Your task to perform on an android device: turn off data saver in the chrome app Image 0: 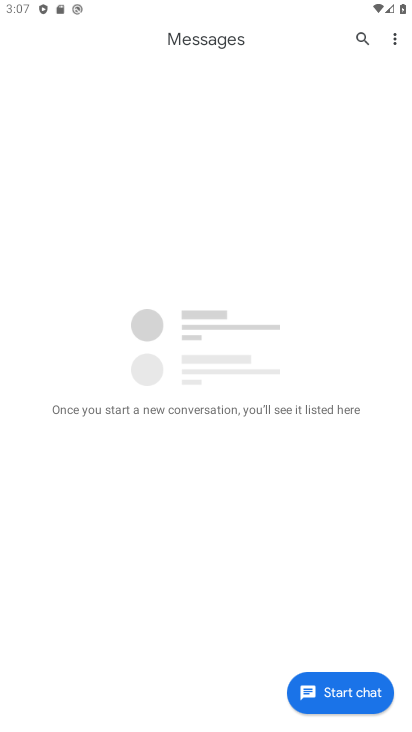
Step 0: press home button
Your task to perform on an android device: turn off data saver in the chrome app Image 1: 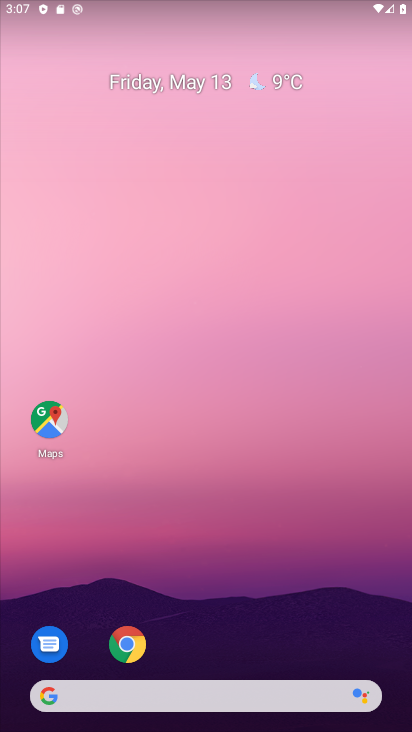
Step 1: drag from (190, 671) to (363, 72)
Your task to perform on an android device: turn off data saver in the chrome app Image 2: 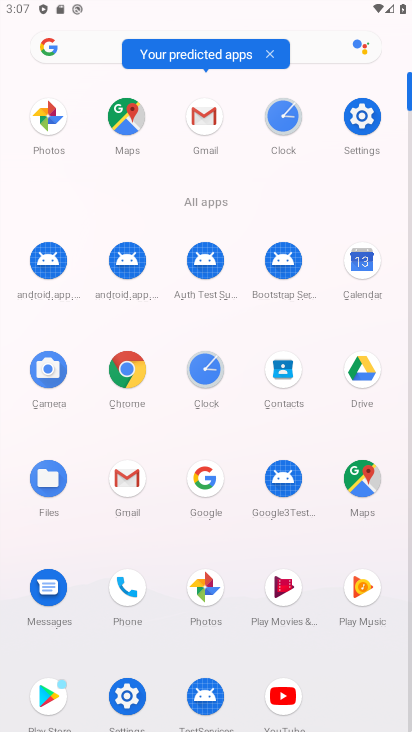
Step 2: drag from (144, 633) to (216, 534)
Your task to perform on an android device: turn off data saver in the chrome app Image 3: 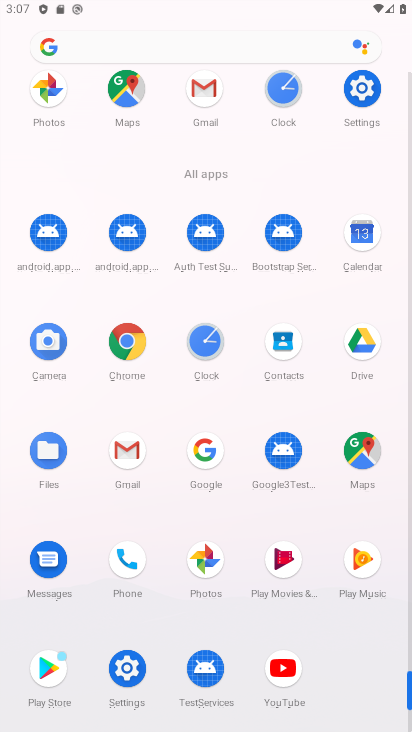
Step 3: click (121, 670)
Your task to perform on an android device: turn off data saver in the chrome app Image 4: 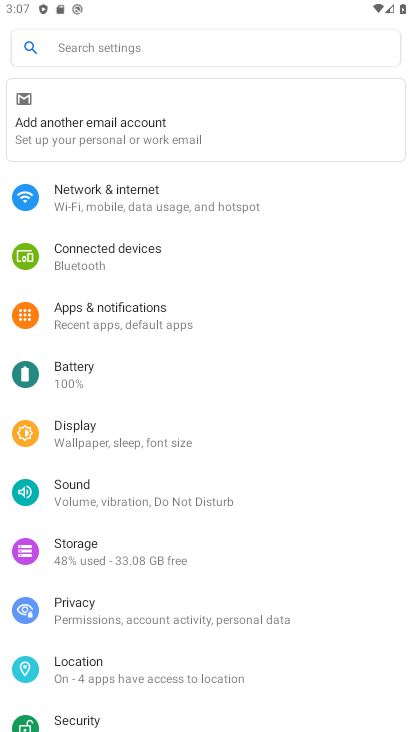
Step 4: press home button
Your task to perform on an android device: turn off data saver in the chrome app Image 5: 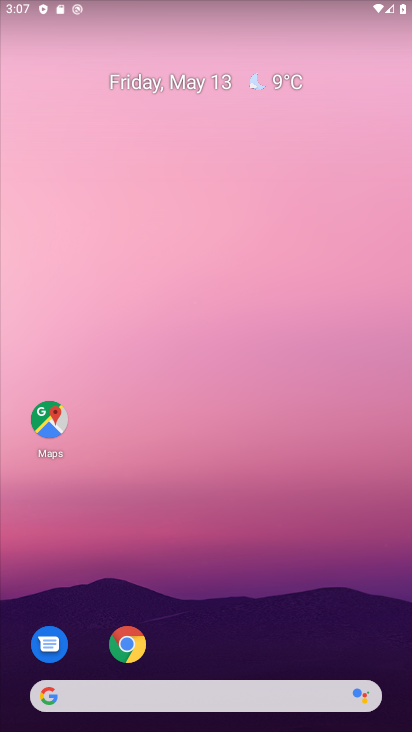
Step 5: click (128, 660)
Your task to perform on an android device: turn off data saver in the chrome app Image 6: 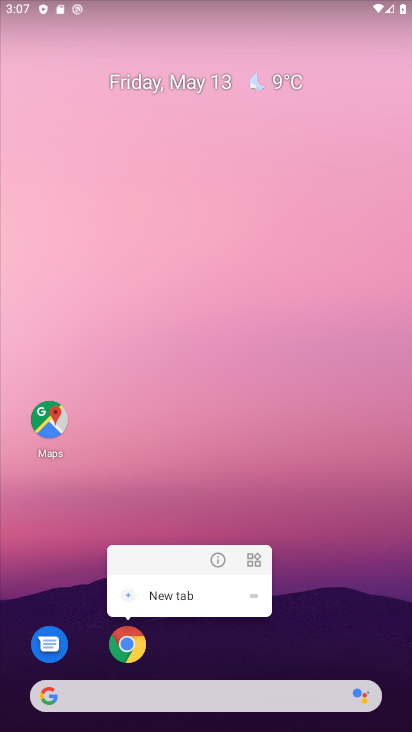
Step 6: click (128, 651)
Your task to perform on an android device: turn off data saver in the chrome app Image 7: 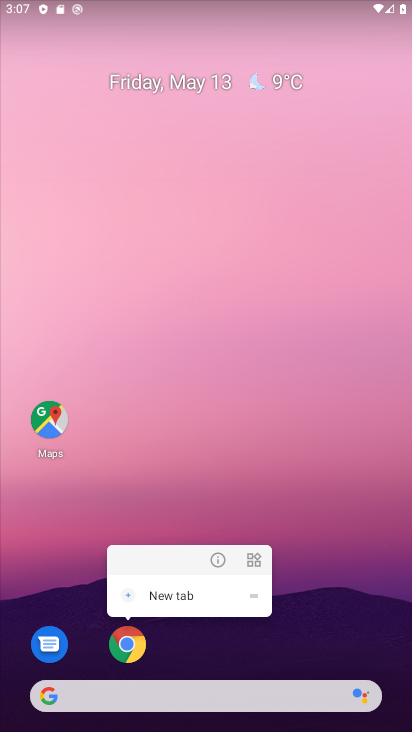
Step 7: click (128, 647)
Your task to perform on an android device: turn off data saver in the chrome app Image 8: 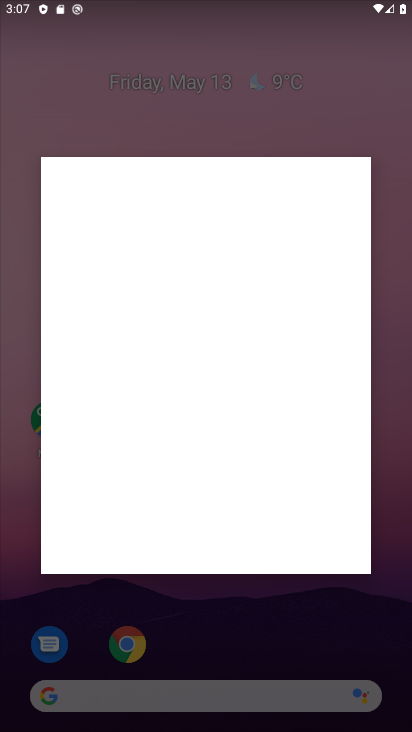
Step 8: click (128, 647)
Your task to perform on an android device: turn off data saver in the chrome app Image 9: 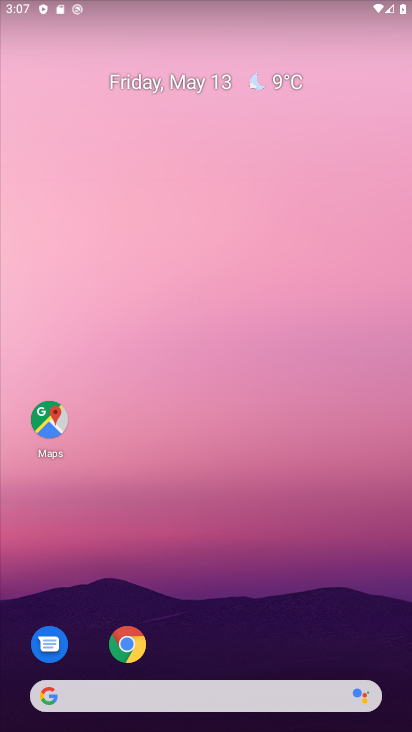
Step 9: click (115, 641)
Your task to perform on an android device: turn off data saver in the chrome app Image 10: 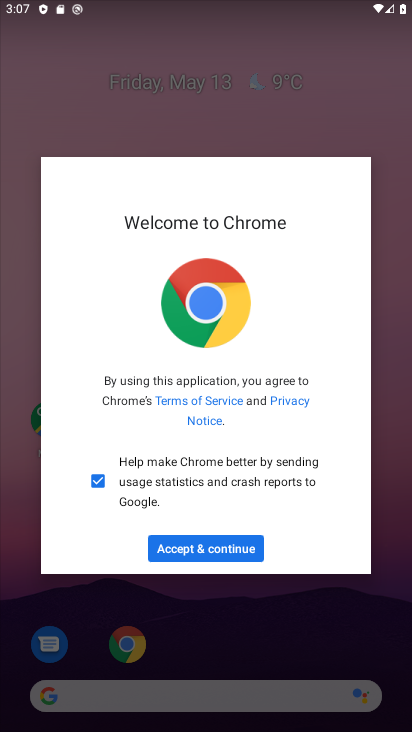
Step 10: click (239, 550)
Your task to perform on an android device: turn off data saver in the chrome app Image 11: 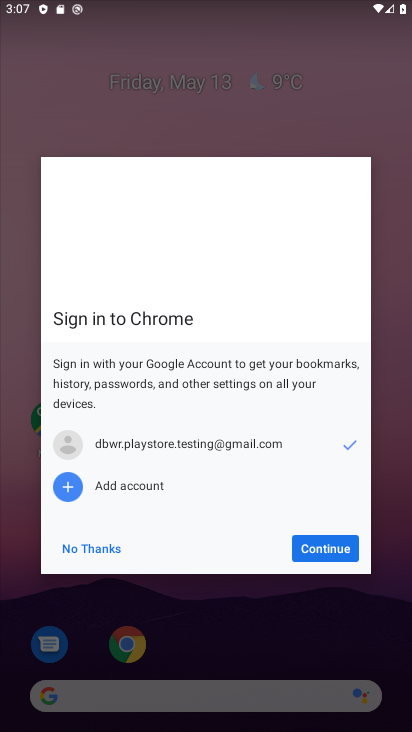
Step 11: click (311, 558)
Your task to perform on an android device: turn off data saver in the chrome app Image 12: 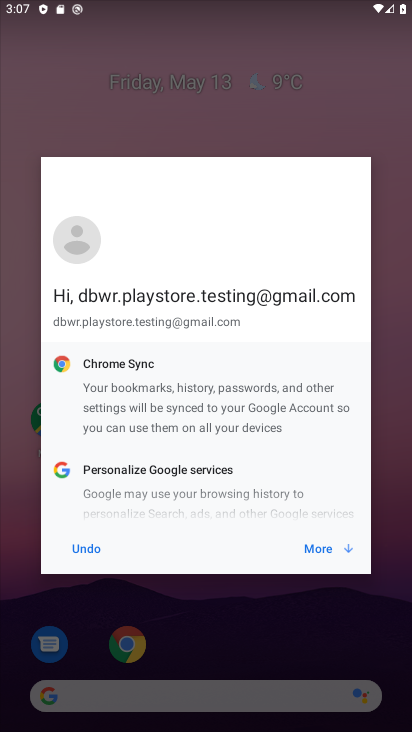
Step 12: click (314, 553)
Your task to perform on an android device: turn off data saver in the chrome app Image 13: 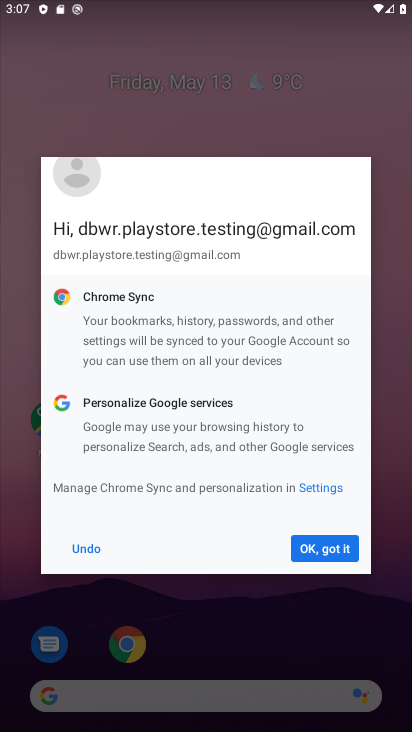
Step 13: click (314, 553)
Your task to perform on an android device: turn off data saver in the chrome app Image 14: 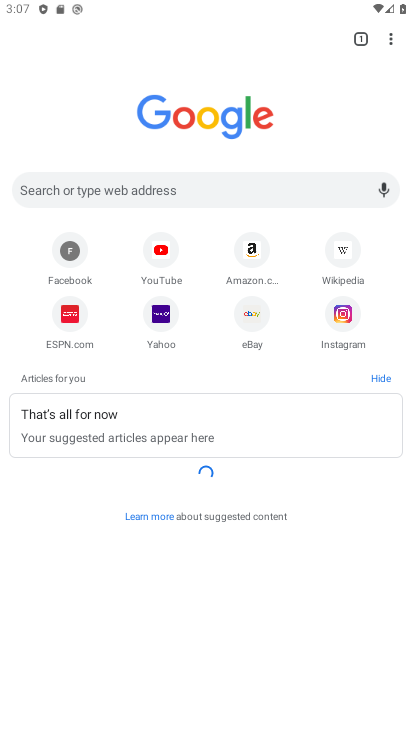
Step 14: drag from (396, 45) to (342, 318)
Your task to perform on an android device: turn off data saver in the chrome app Image 15: 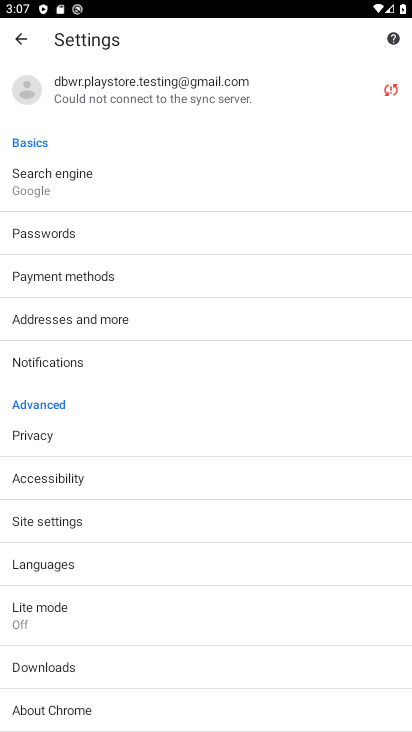
Step 15: drag from (203, 645) to (280, 368)
Your task to perform on an android device: turn off data saver in the chrome app Image 16: 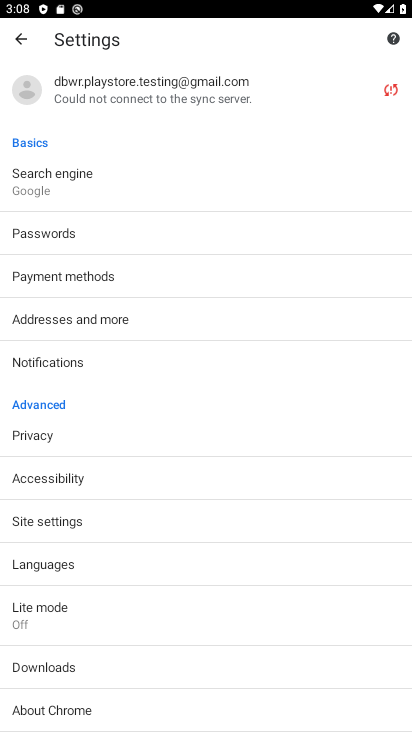
Step 16: click (113, 617)
Your task to perform on an android device: turn off data saver in the chrome app Image 17: 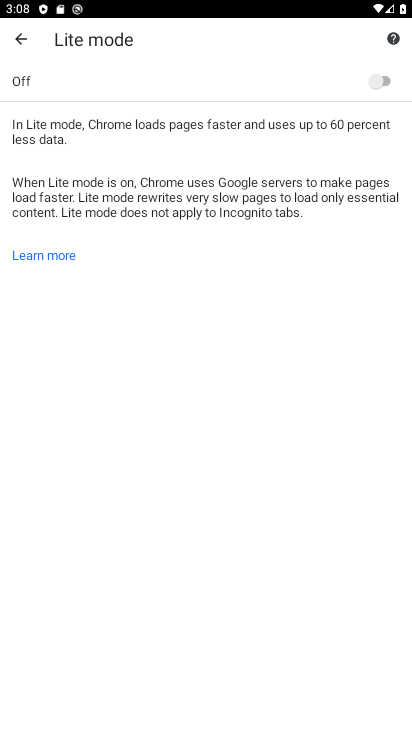
Step 17: task complete